Your task to perform on an android device: set default search engine in the chrome app Image 0: 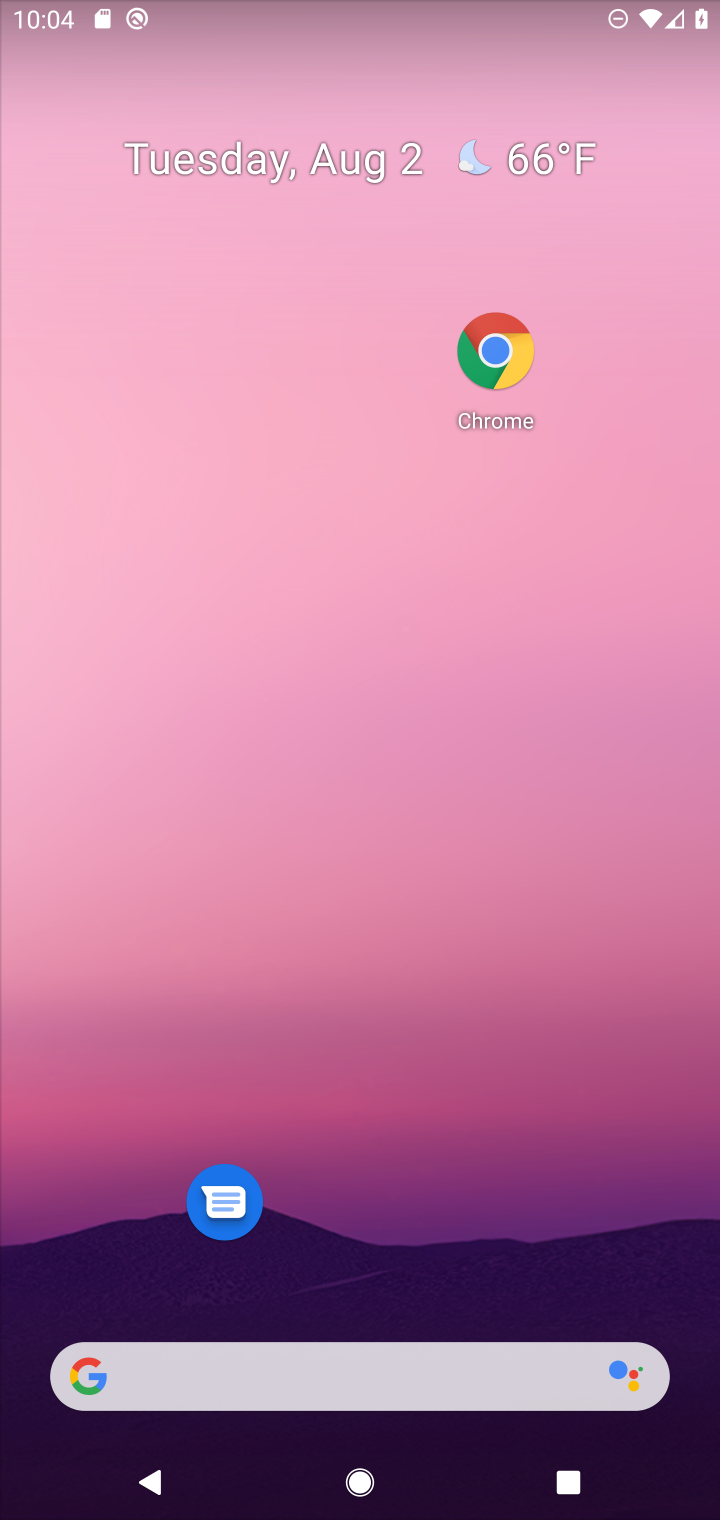
Step 0: click (497, 359)
Your task to perform on an android device: set default search engine in the chrome app Image 1: 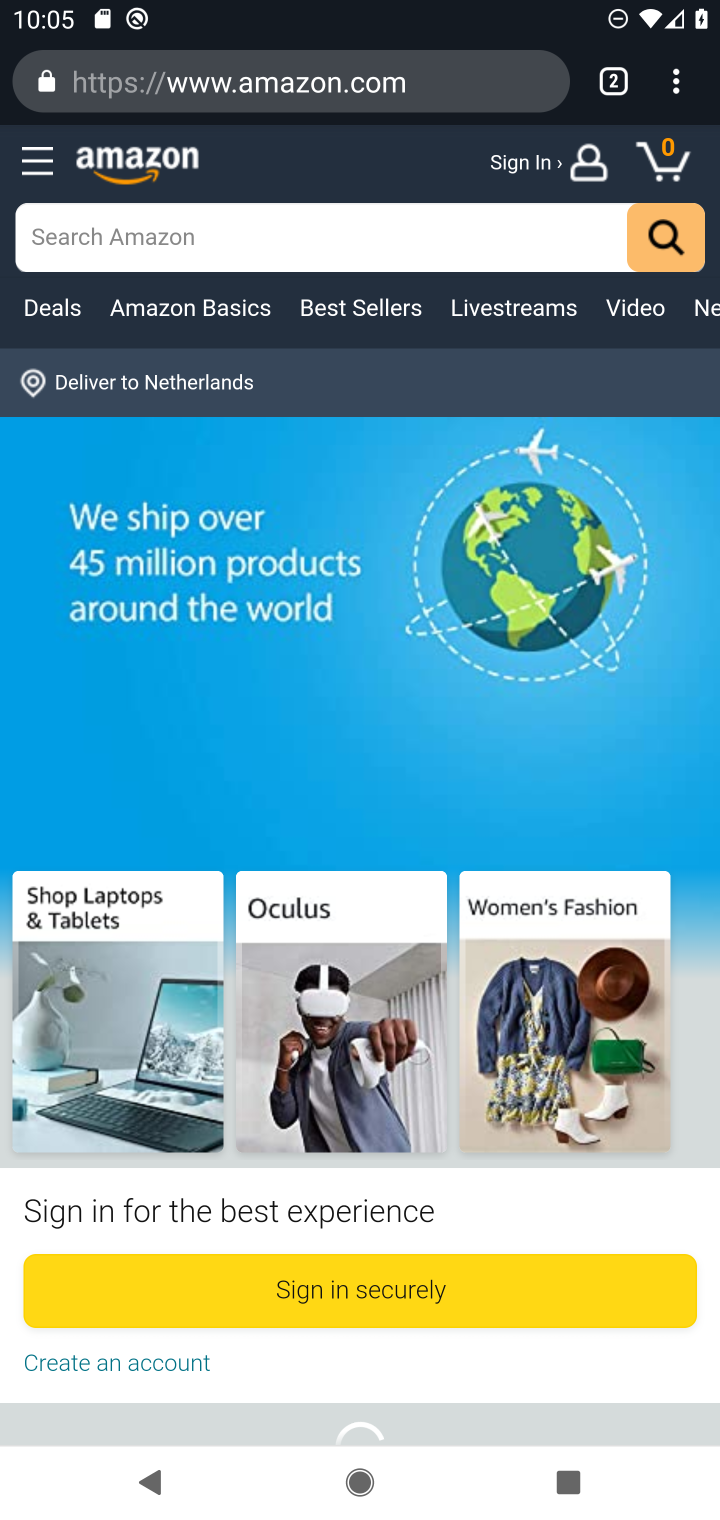
Step 1: drag from (683, 81) to (391, 989)
Your task to perform on an android device: set default search engine in the chrome app Image 2: 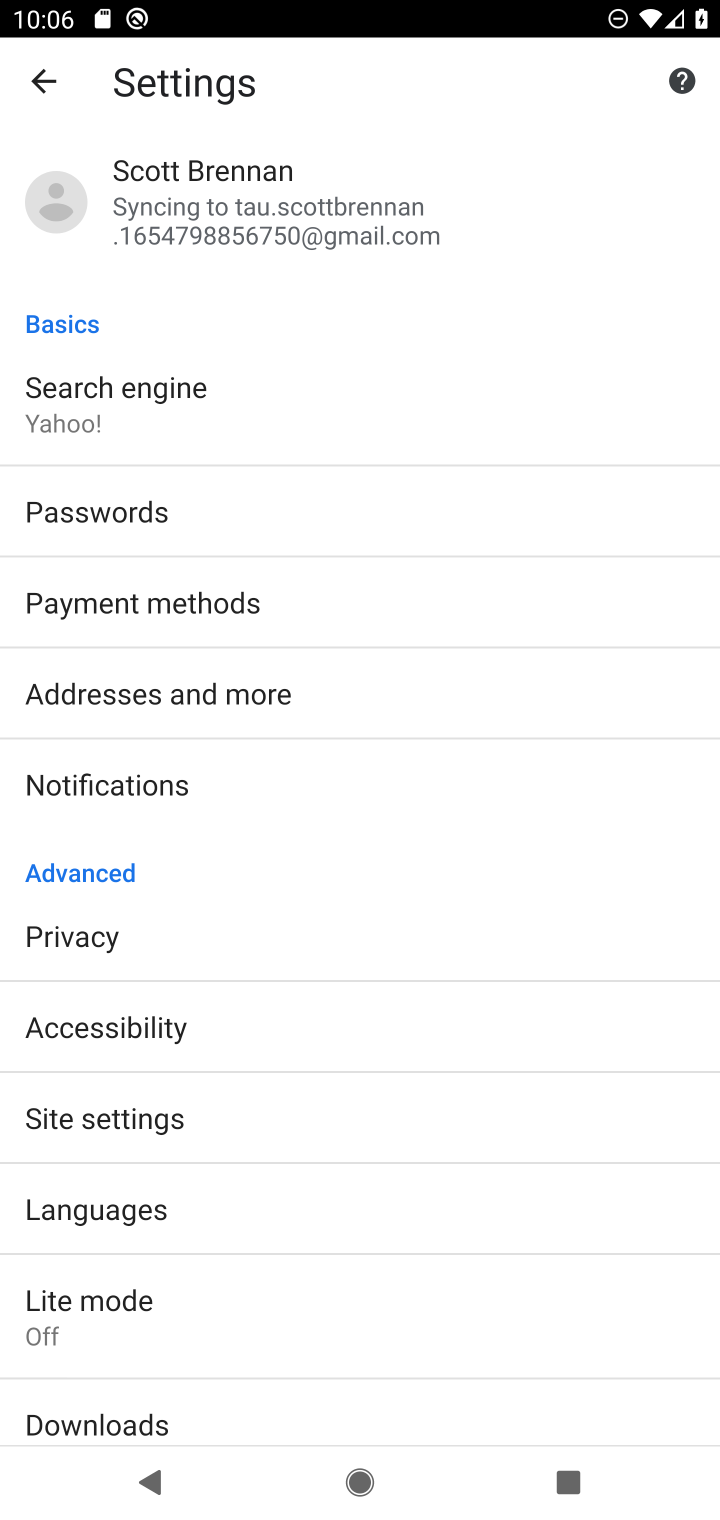
Step 2: click (74, 423)
Your task to perform on an android device: set default search engine in the chrome app Image 3: 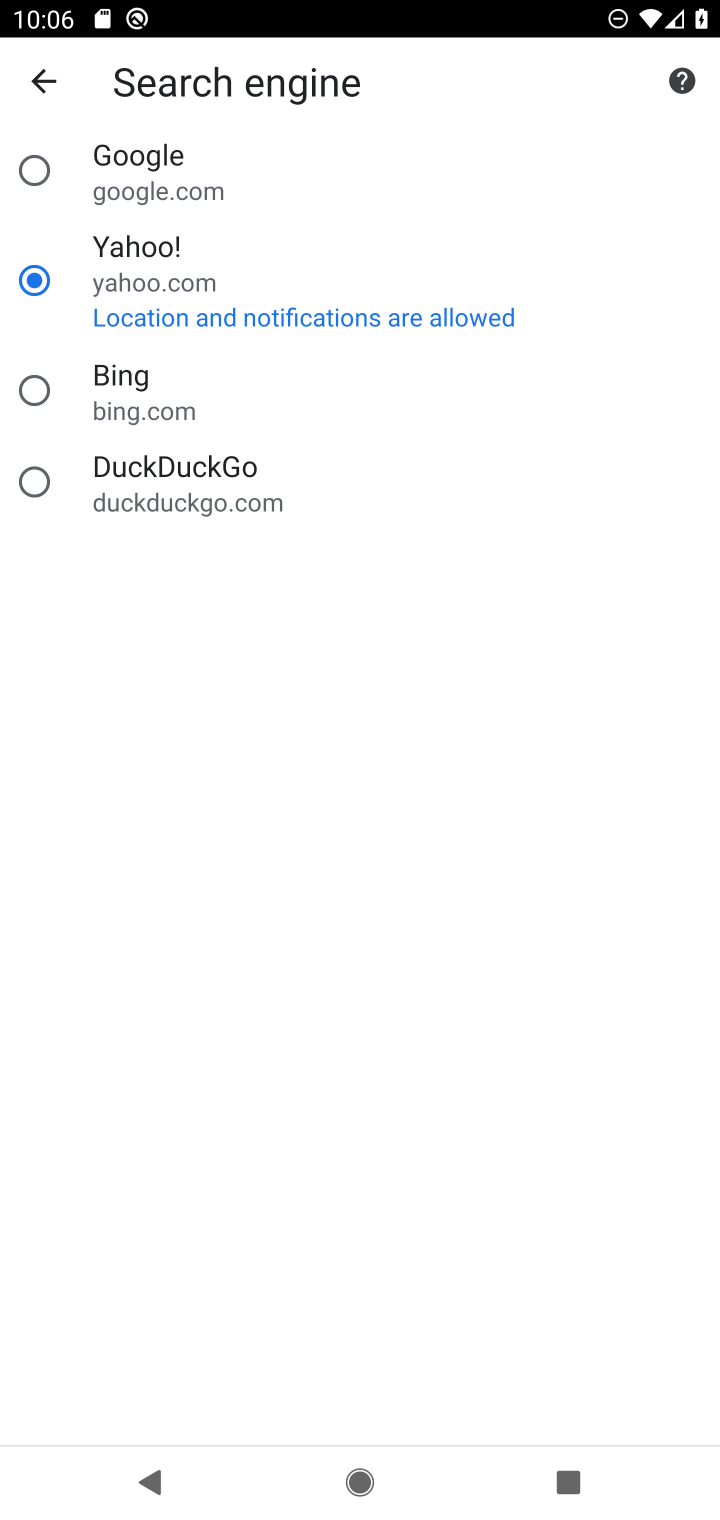
Step 3: click (48, 401)
Your task to perform on an android device: set default search engine in the chrome app Image 4: 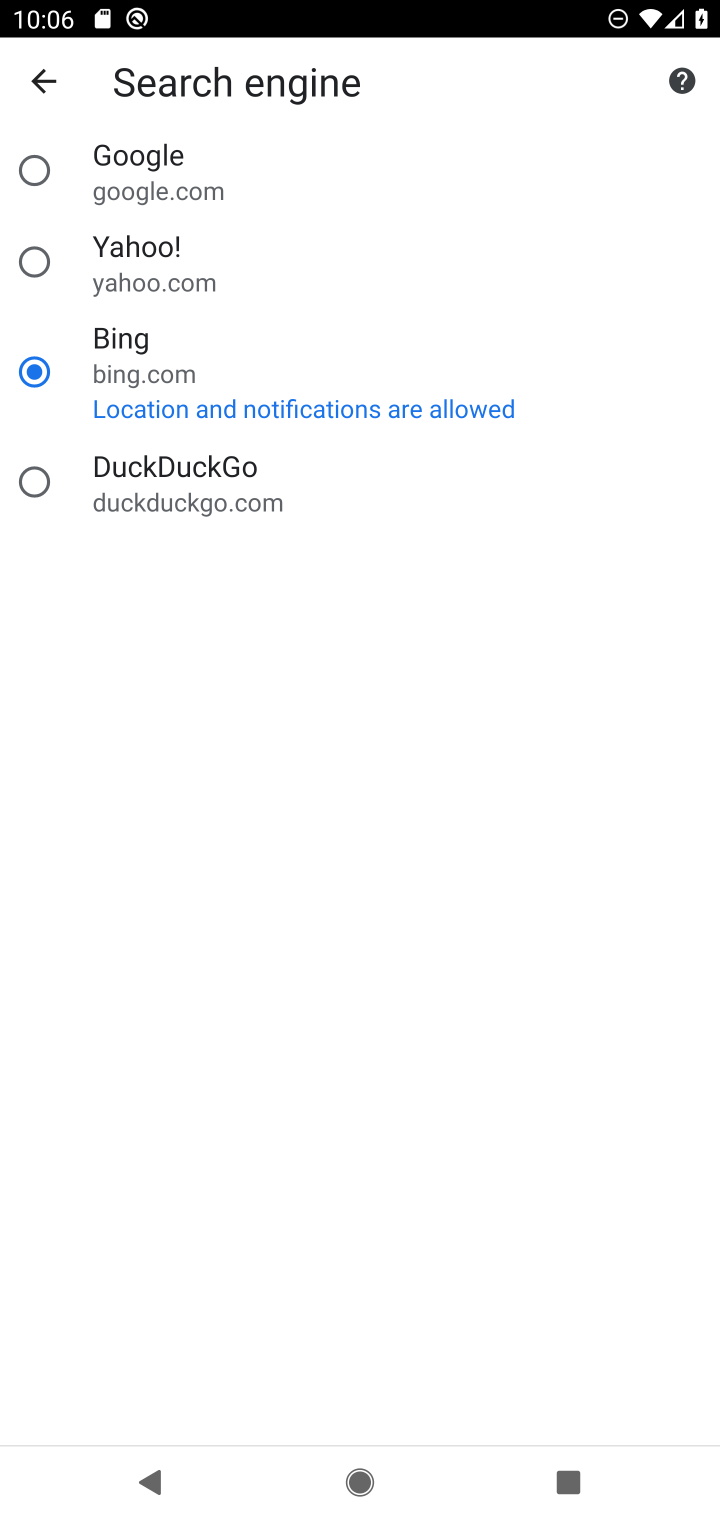
Step 4: task complete